Your task to perform on an android device: open device folders in google photos Image 0: 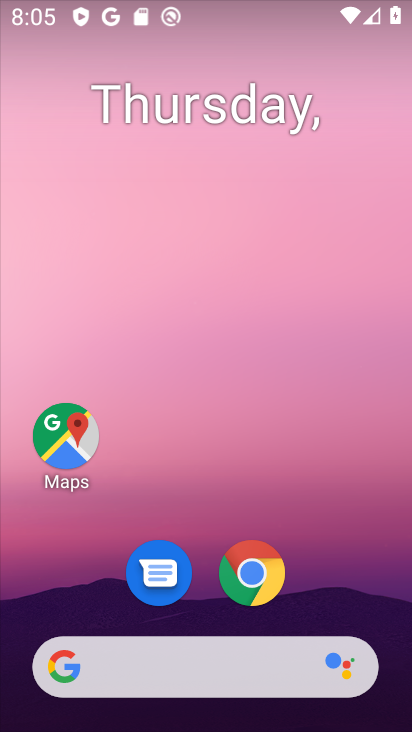
Step 0: drag from (379, 566) to (364, 119)
Your task to perform on an android device: open device folders in google photos Image 1: 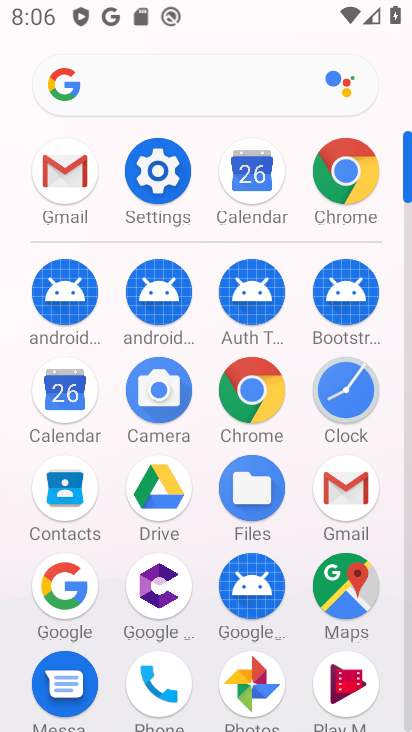
Step 1: click (264, 663)
Your task to perform on an android device: open device folders in google photos Image 2: 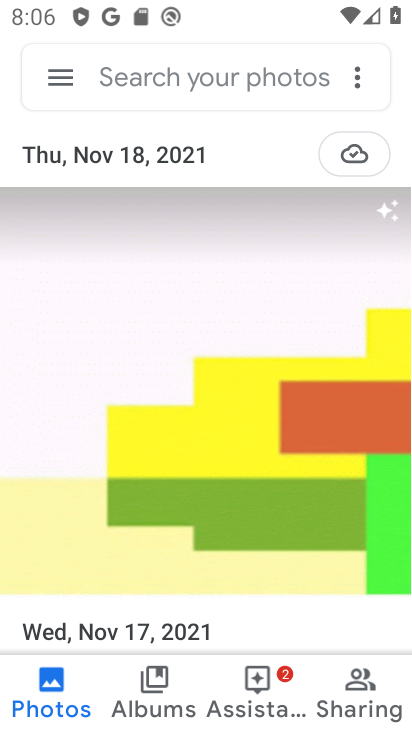
Step 2: click (136, 696)
Your task to perform on an android device: open device folders in google photos Image 3: 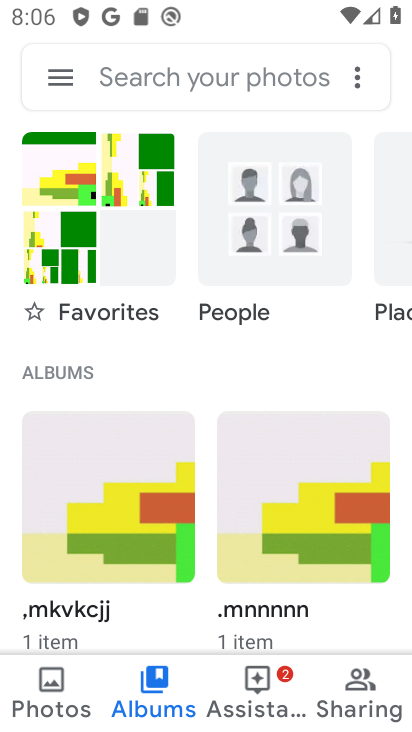
Step 3: drag from (173, 622) to (214, 405)
Your task to perform on an android device: open device folders in google photos Image 4: 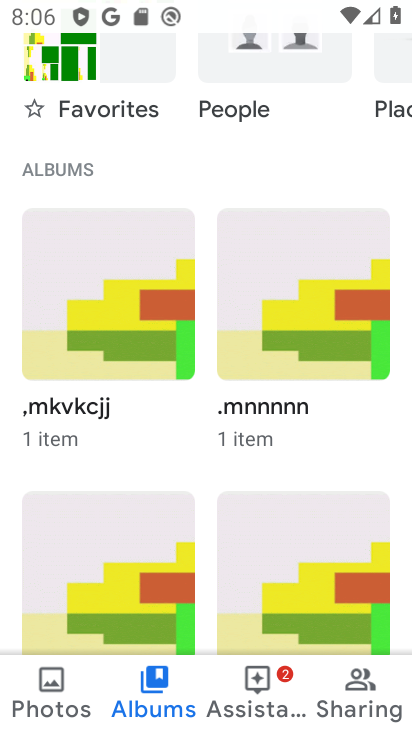
Step 4: drag from (232, 251) to (232, 577)
Your task to perform on an android device: open device folders in google photos Image 5: 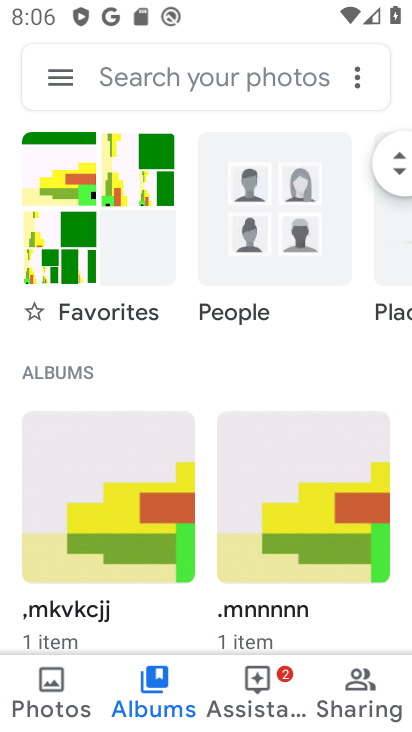
Step 5: click (64, 68)
Your task to perform on an android device: open device folders in google photos Image 6: 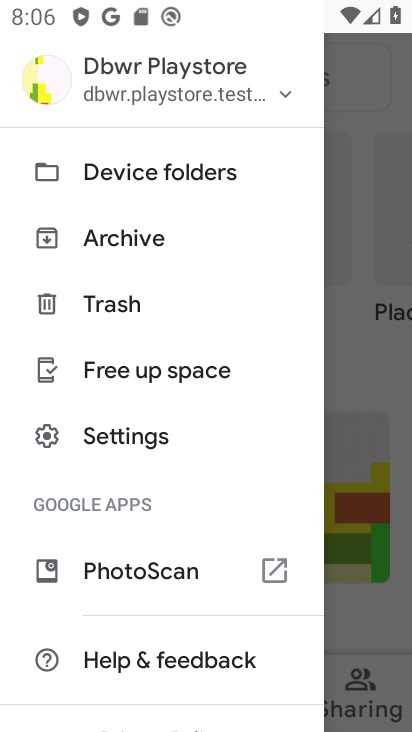
Step 6: click (137, 165)
Your task to perform on an android device: open device folders in google photos Image 7: 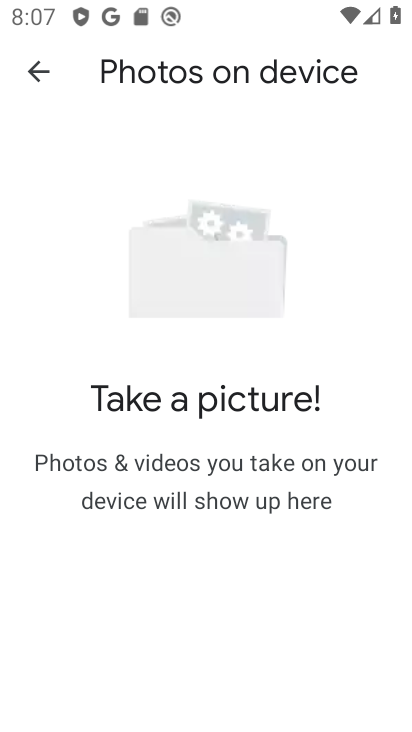
Step 7: task complete